Your task to perform on an android device: Open battery settings Image 0: 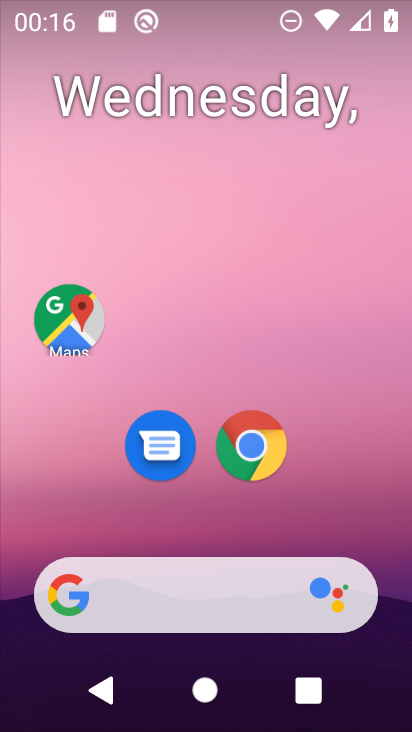
Step 0: drag from (231, 517) to (276, 74)
Your task to perform on an android device: Open battery settings Image 1: 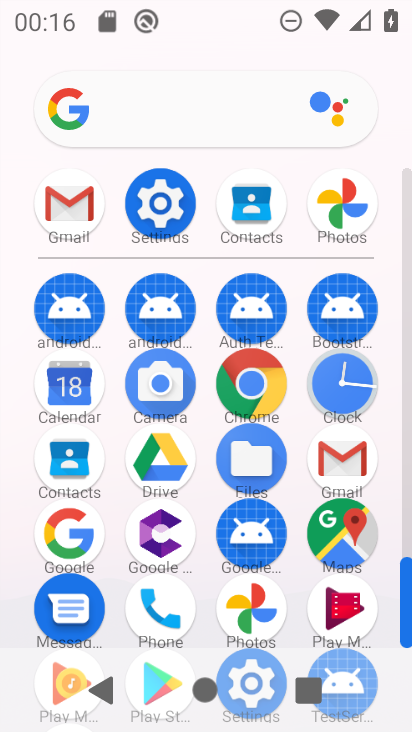
Step 1: click (166, 197)
Your task to perform on an android device: Open battery settings Image 2: 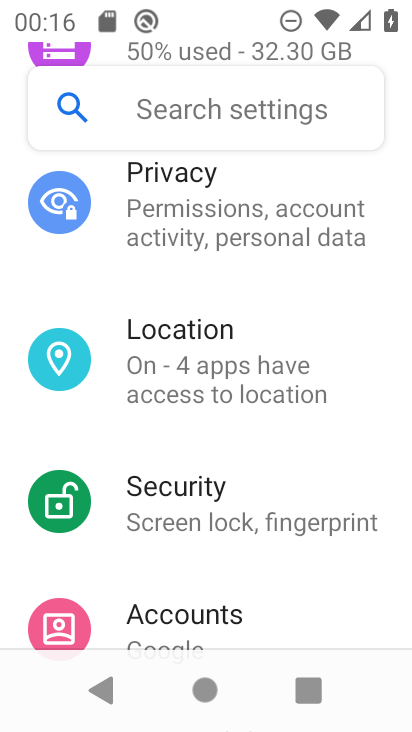
Step 2: drag from (296, 267) to (311, 447)
Your task to perform on an android device: Open battery settings Image 3: 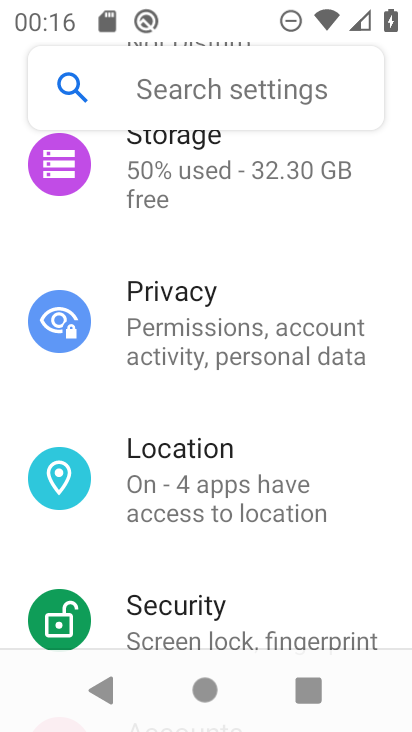
Step 3: drag from (299, 299) to (302, 512)
Your task to perform on an android device: Open battery settings Image 4: 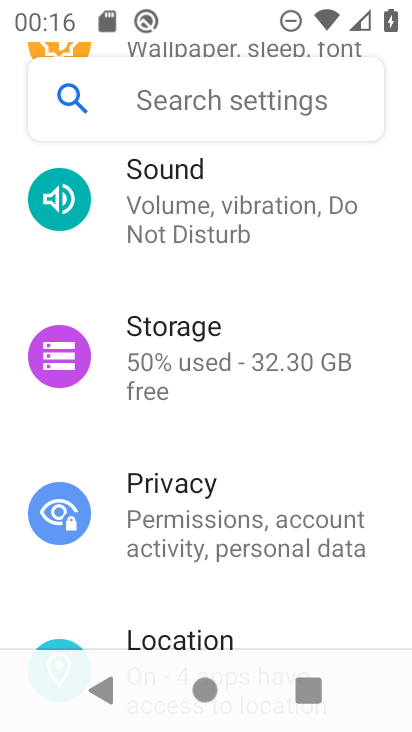
Step 4: drag from (300, 336) to (323, 585)
Your task to perform on an android device: Open battery settings Image 5: 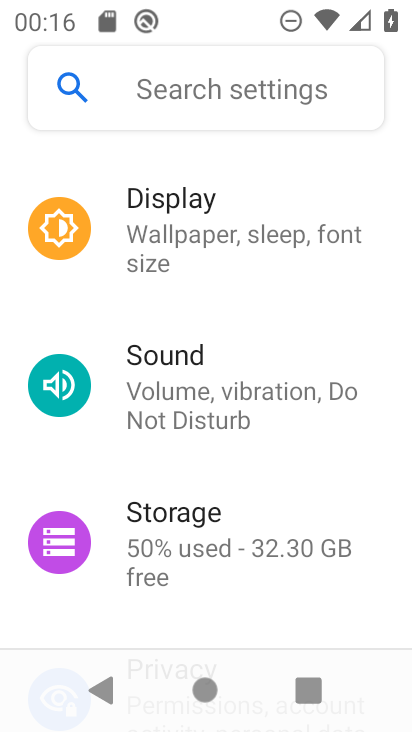
Step 5: drag from (307, 343) to (311, 610)
Your task to perform on an android device: Open battery settings Image 6: 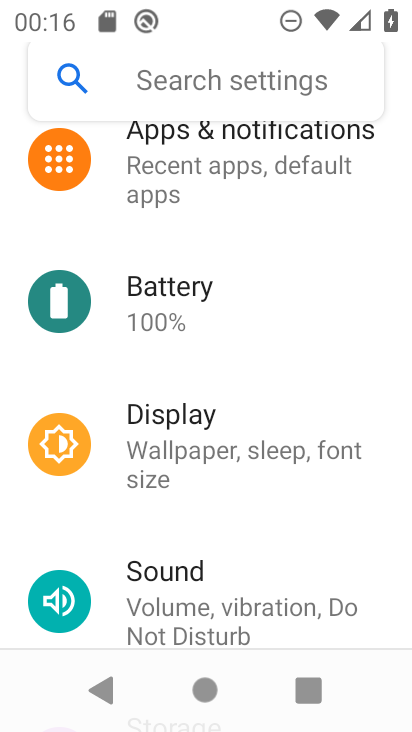
Step 6: click (248, 317)
Your task to perform on an android device: Open battery settings Image 7: 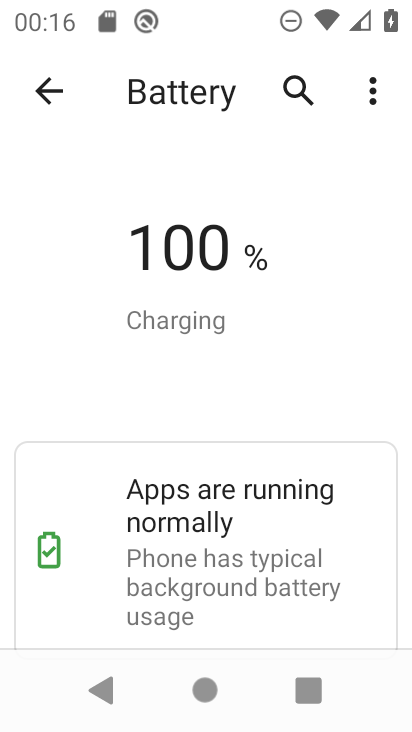
Step 7: task complete